Your task to perform on an android device: remove spam from my inbox in the gmail app Image 0: 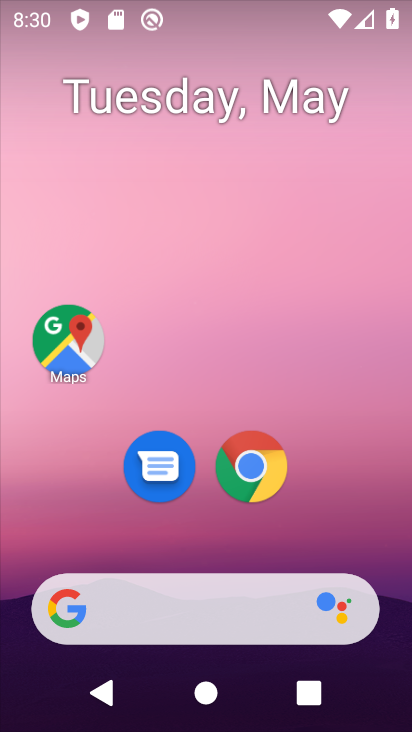
Step 0: press home button
Your task to perform on an android device: remove spam from my inbox in the gmail app Image 1: 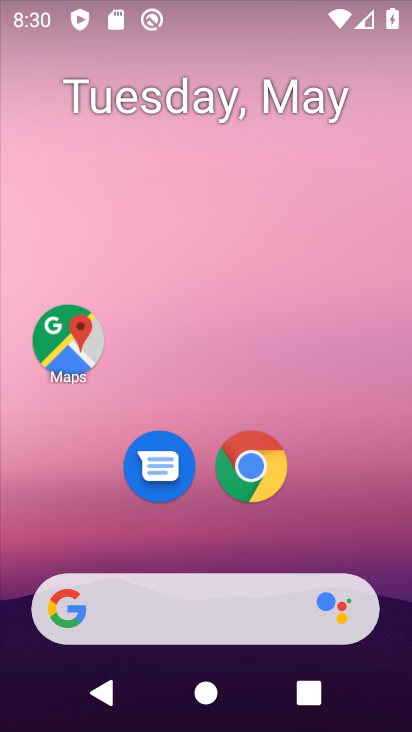
Step 1: drag from (200, 526) to (204, 62)
Your task to perform on an android device: remove spam from my inbox in the gmail app Image 2: 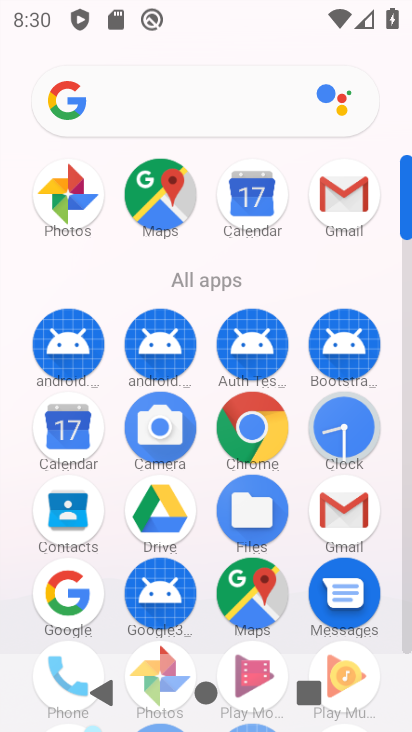
Step 2: click (339, 188)
Your task to perform on an android device: remove spam from my inbox in the gmail app Image 3: 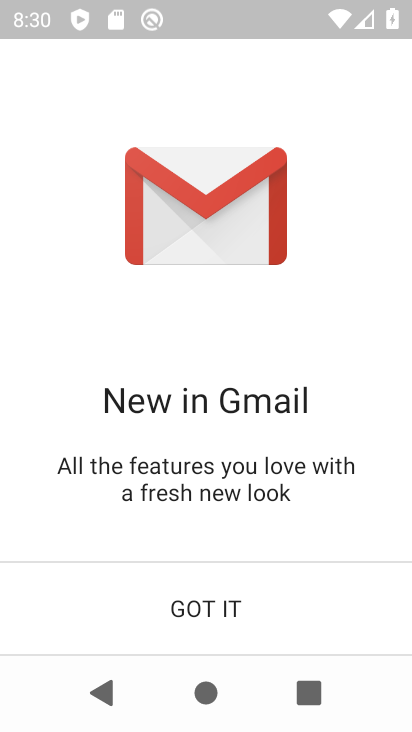
Step 3: click (210, 621)
Your task to perform on an android device: remove spam from my inbox in the gmail app Image 4: 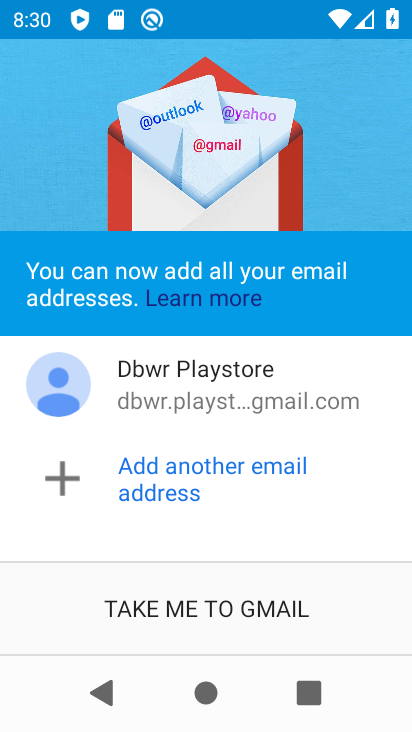
Step 4: click (206, 626)
Your task to perform on an android device: remove spam from my inbox in the gmail app Image 5: 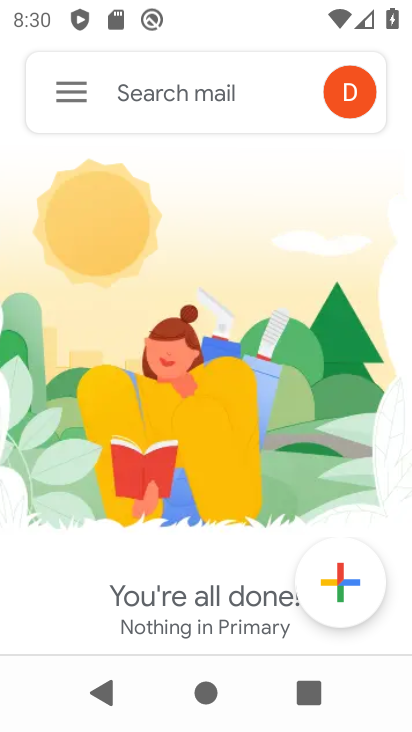
Step 5: click (72, 81)
Your task to perform on an android device: remove spam from my inbox in the gmail app Image 6: 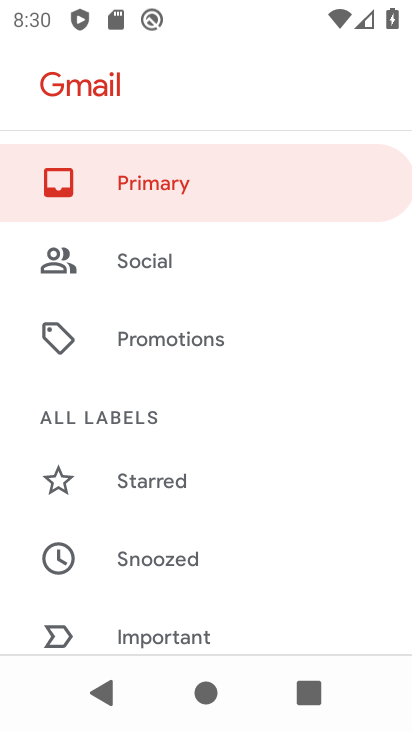
Step 6: drag from (110, 612) to (104, 126)
Your task to perform on an android device: remove spam from my inbox in the gmail app Image 7: 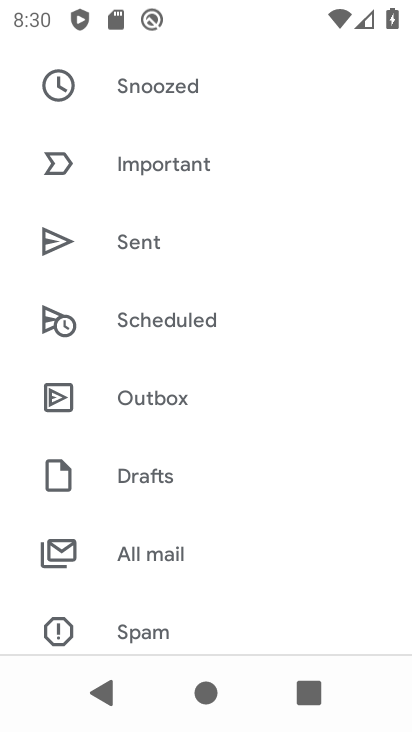
Step 7: click (90, 630)
Your task to perform on an android device: remove spam from my inbox in the gmail app Image 8: 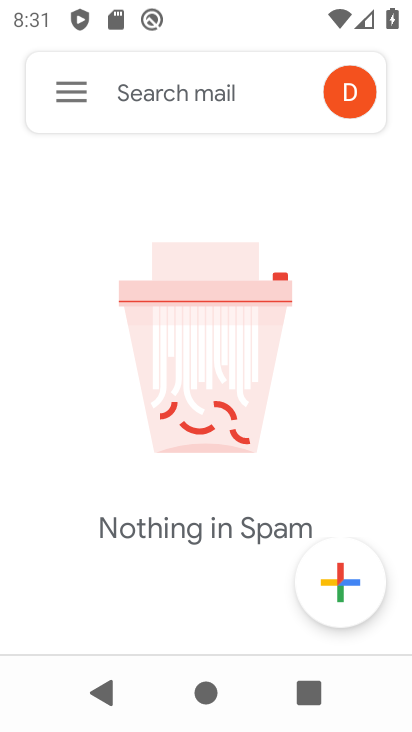
Step 8: task complete